Your task to perform on an android device: open chrome and create a bookmark for the current page Image 0: 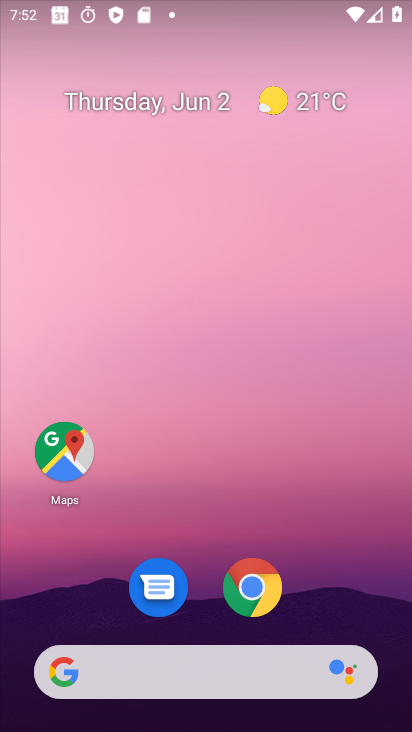
Step 0: click (256, 593)
Your task to perform on an android device: open chrome and create a bookmark for the current page Image 1: 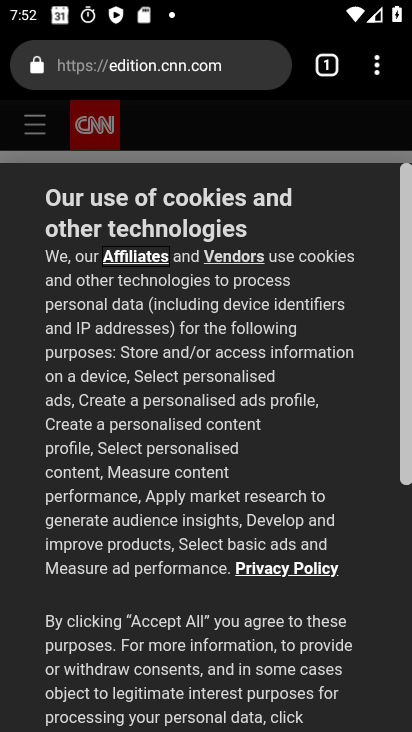
Step 1: click (379, 69)
Your task to perform on an android device: open chrome and create a bookmark for the current page Image 2: 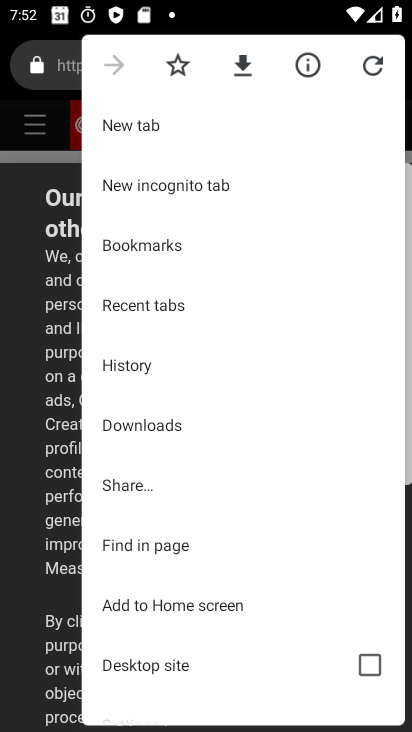
Step 2: click (178, 68)
Your task to perform on an android device: open chrome and create a bookmark for the current page Image 3: 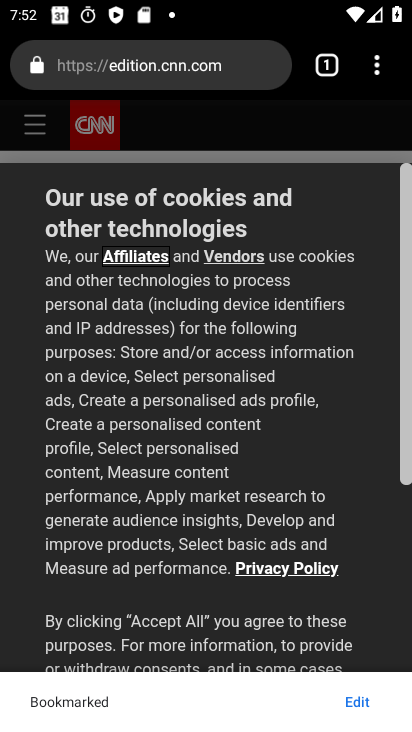
Step 3: task complete